Your task to perform on an android device: What is the recent news? Image 0: 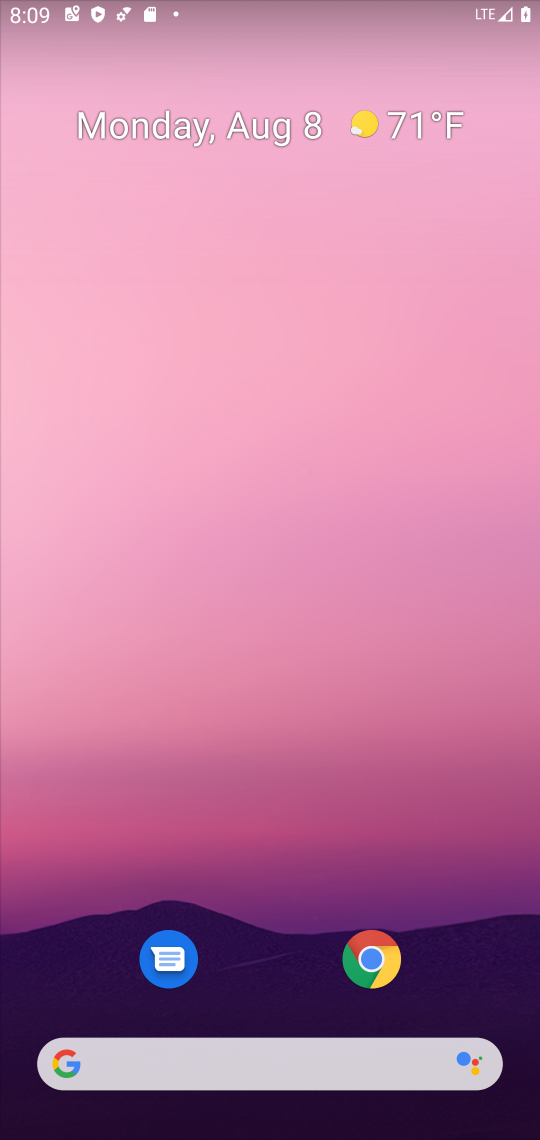
Step 0: drag from (473, 966) to (251, 0)
Your task to perform on an android device: What is the recent news? Image 1: 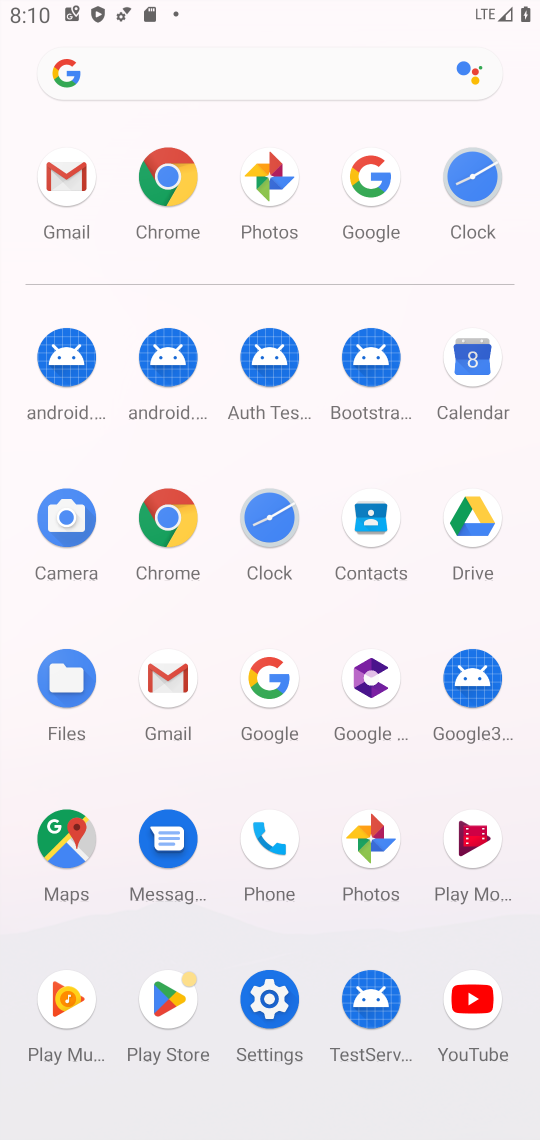
Step 1: click (267, 686)
Your task to perform on an android device: What is the recent news? Image 2: 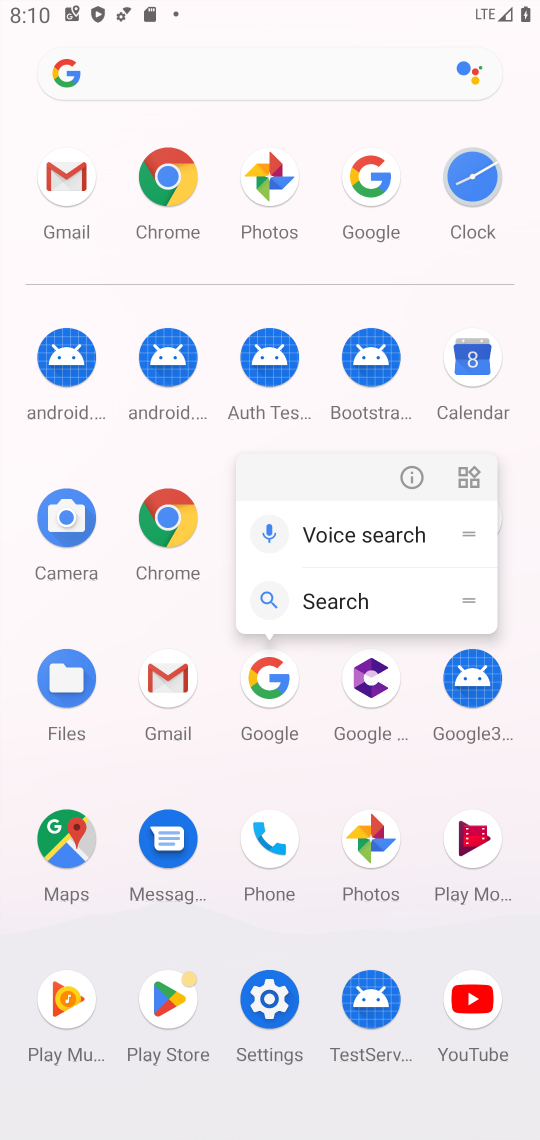
Step 2: click (263, 675)
Your task to perform on an android device: What is the recent news? Image 3: 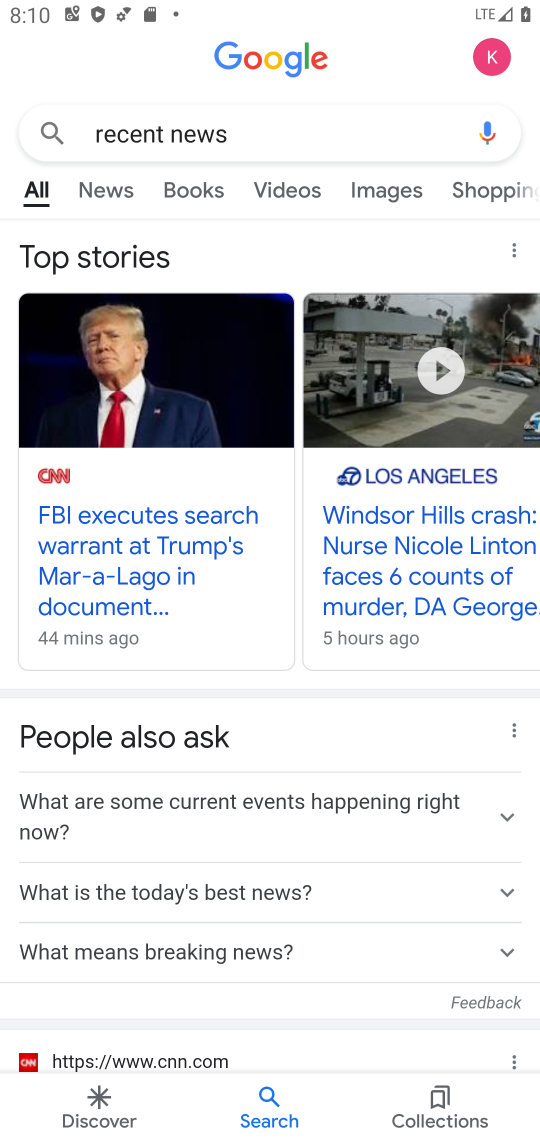
Step 3: task complete